Your task to perform on an android device: Show me popular videos on Youtube Image 0: 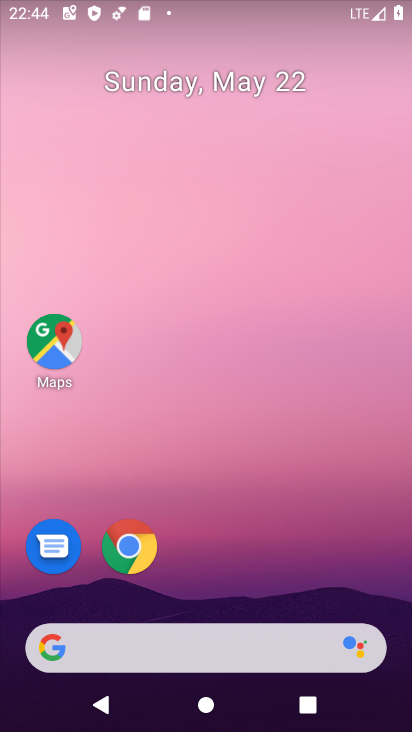
Step 0: drag from (336, 170) to (347, 114)
Your task to perform on an android device: Show me popular videos on Youtube Image 1: 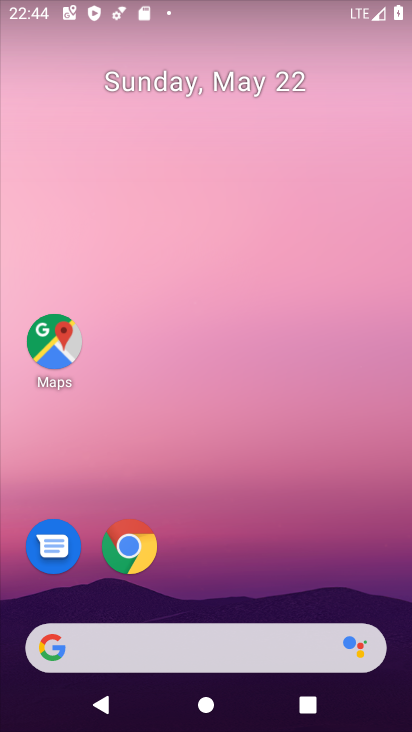
Step 1: drag from (203, 607) to (274, 15)
Your task to perform on an android device: Show me popular videos on Youtube Image 2: 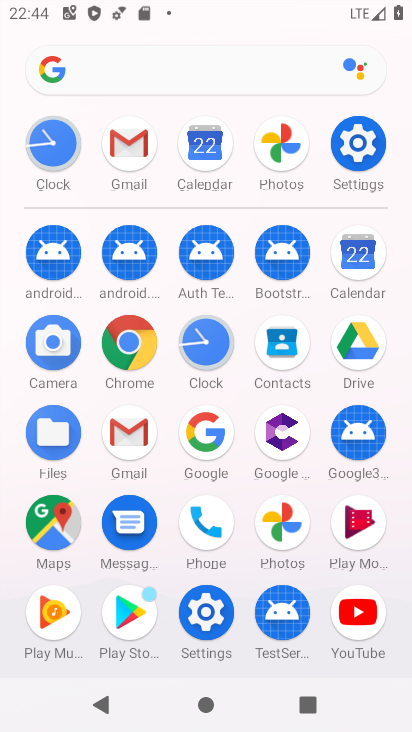
Step 2: click (344, 614)
Your task to perform on an android device: Show me popular videos on Youtube Image 3: 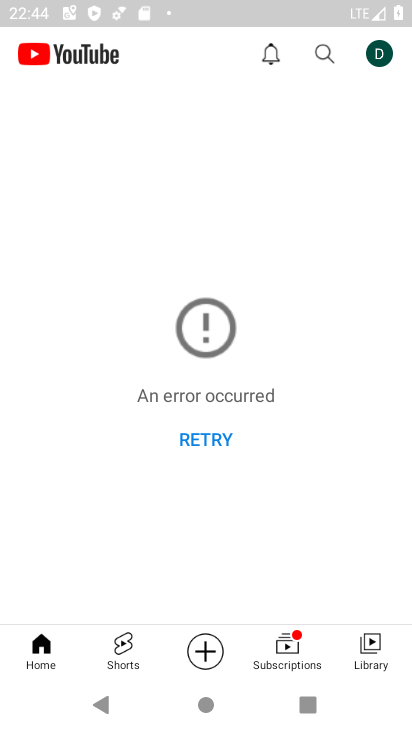
Step 3: click (209, 435)
Your task to perform on an android device: Show me popular videos on Youtube Image 4: 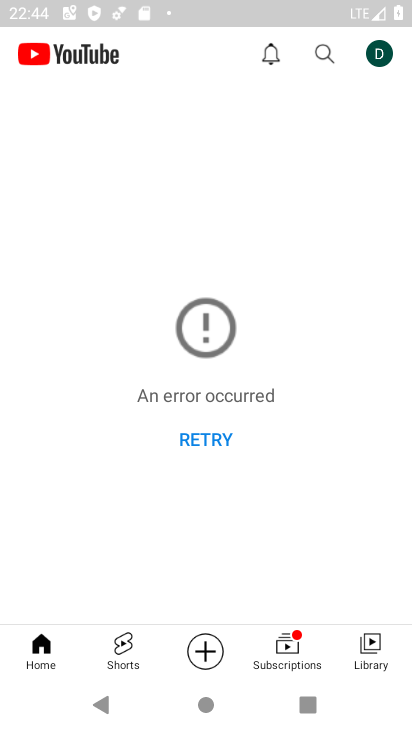
Step 4: click (209, 435)
Your task to perform on an android device: Show me popular videos on Youtube Image 5: 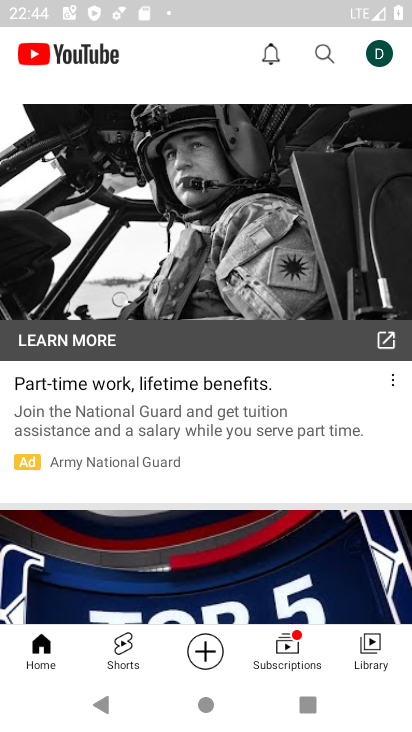
Step 5: task complete